Your task to perform on an android device: toggle show notifications on the lock screen Image 0: 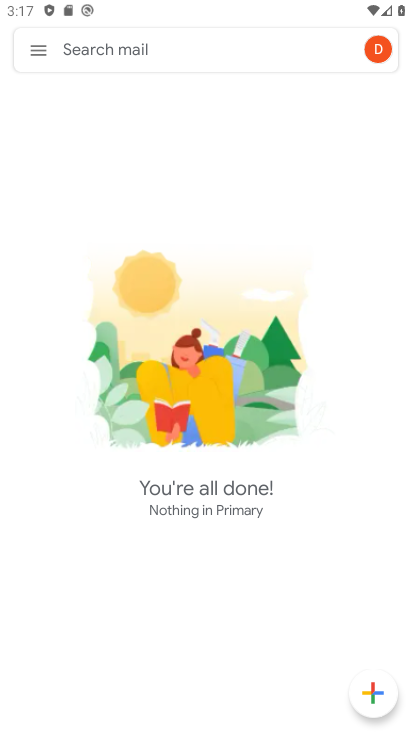
Step 0: press home button
Your task to perform on an android device: toggle show notifications on the lock screen Image 1: 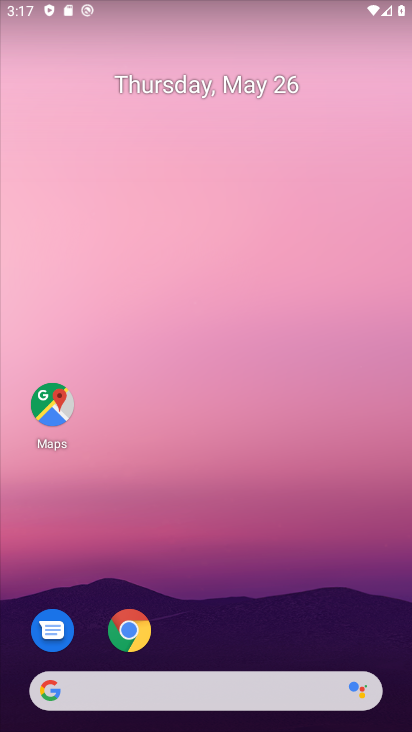
Step 1: drag from (263, 601) to (217, 137)
Your task to perform on an android device: toggle show notifications on the lock screen Image 2: 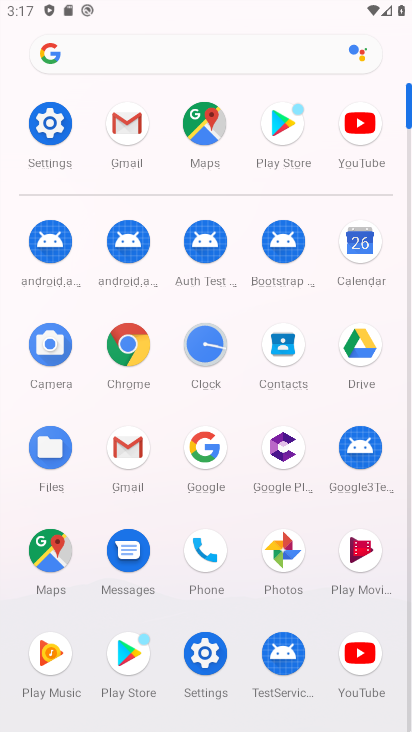
Step 2: click (51, 121)
Your task to perform on an android device: toggle show notifications on the lock screen Image 3: 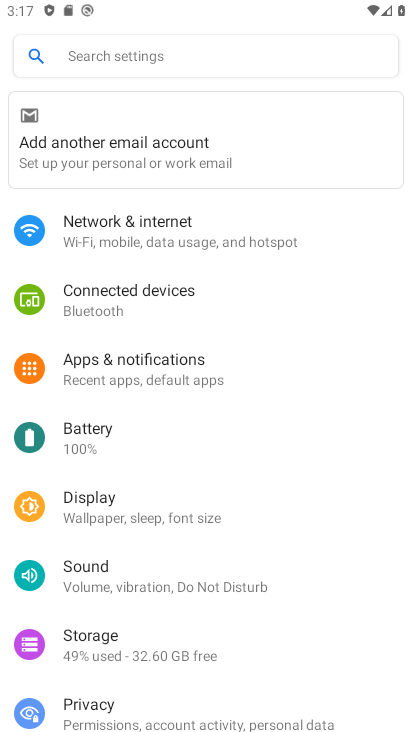
Step 3: click (156, 379)
Your task to perform on an android device: toggle show notifications on the lock screen Image 4: 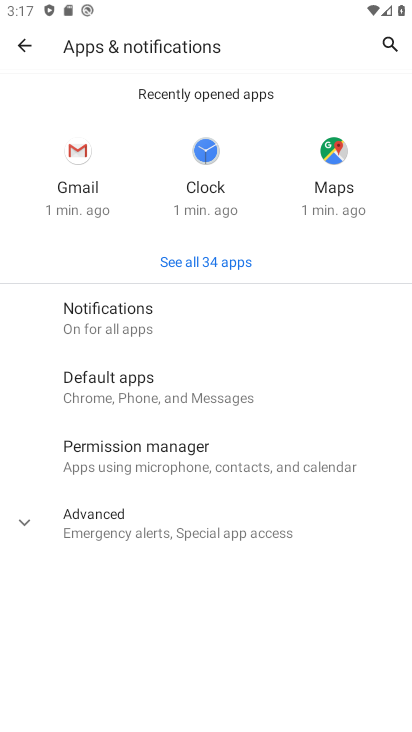
Step 4: click (111, 311)
Your task to perform on an android device: toggle show notifications on the lock screen Image 5: 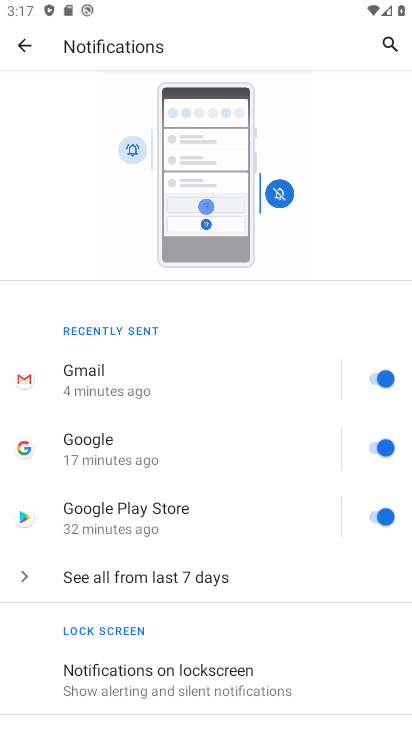
Step 5: drag from (159, 624) to (222, 540)
Your task to perform on an android device: toggle show notifications on the lock screen Image 6: 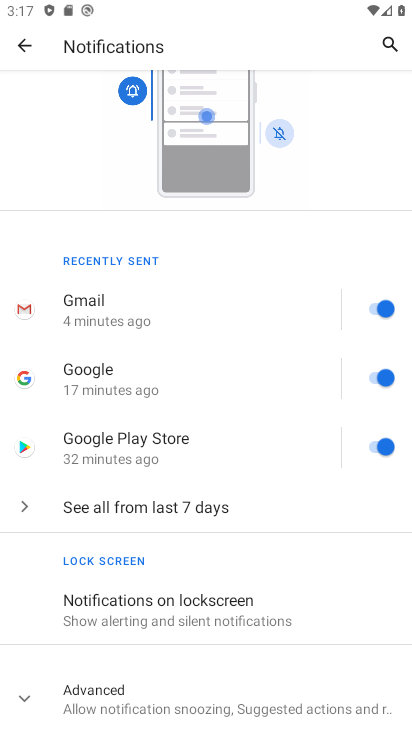
Step 6: click (158, 604)
Your task to perform on an android device: toggle show notifications on the lock screen Image 7: 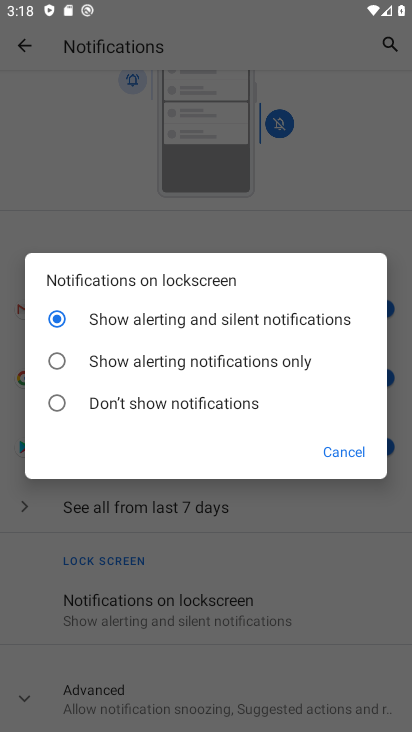
Step 7: click (59, 401)
Your task to perform on an android device: toggle show notifications on the lock screen Image 8: 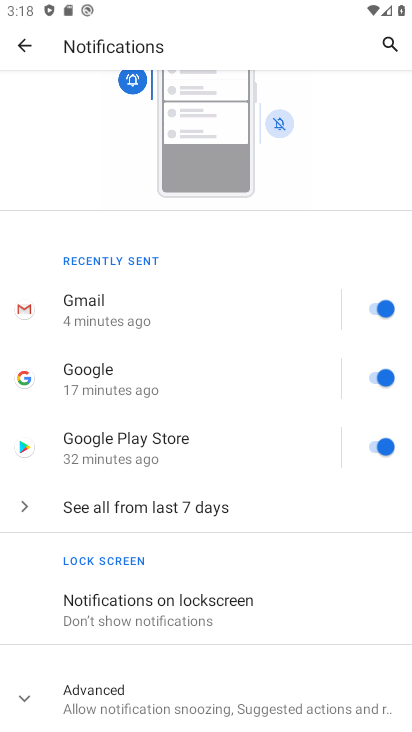
Step 8: task complete